Your task to perform on an android device: See recent photos Image 0: 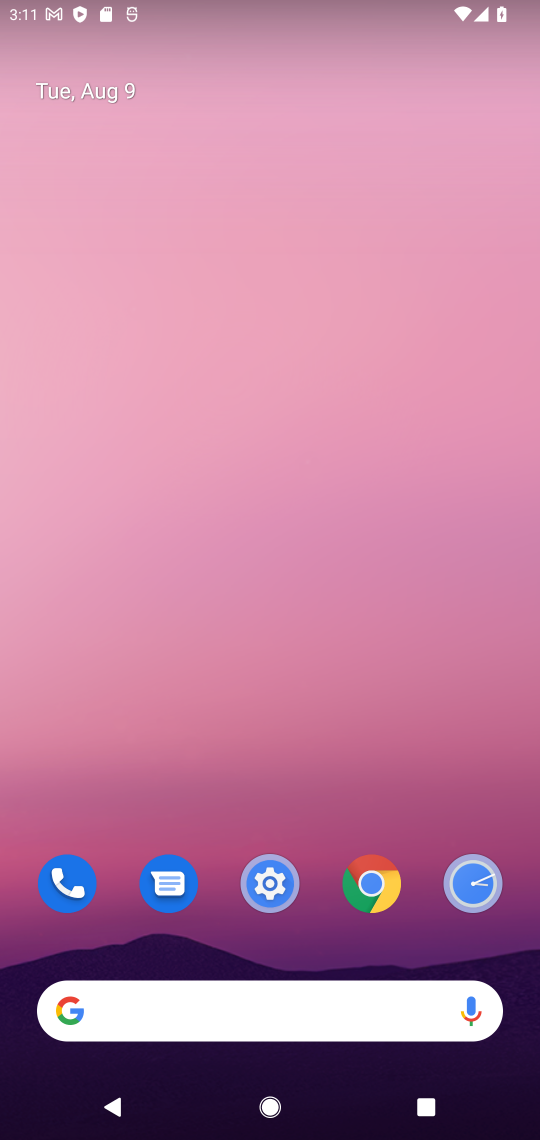
Step 0: drag from (313, 1017) to (136, 196)
Your task to perform on an android device: See recent photos Image 1: 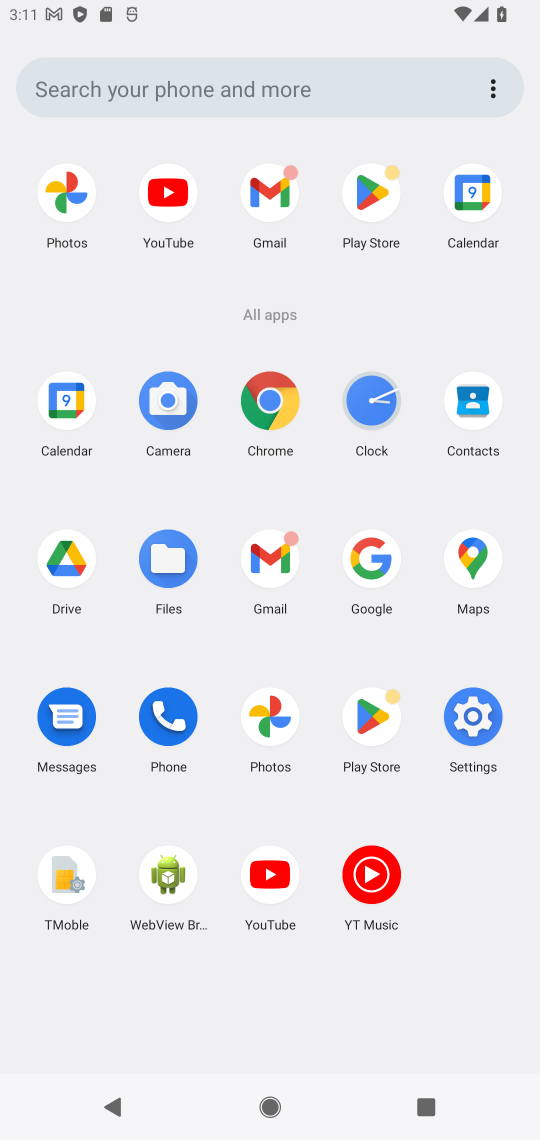
Step 1: click (270, 716)
Your task to perform on an android device: See recent photos Image 2: 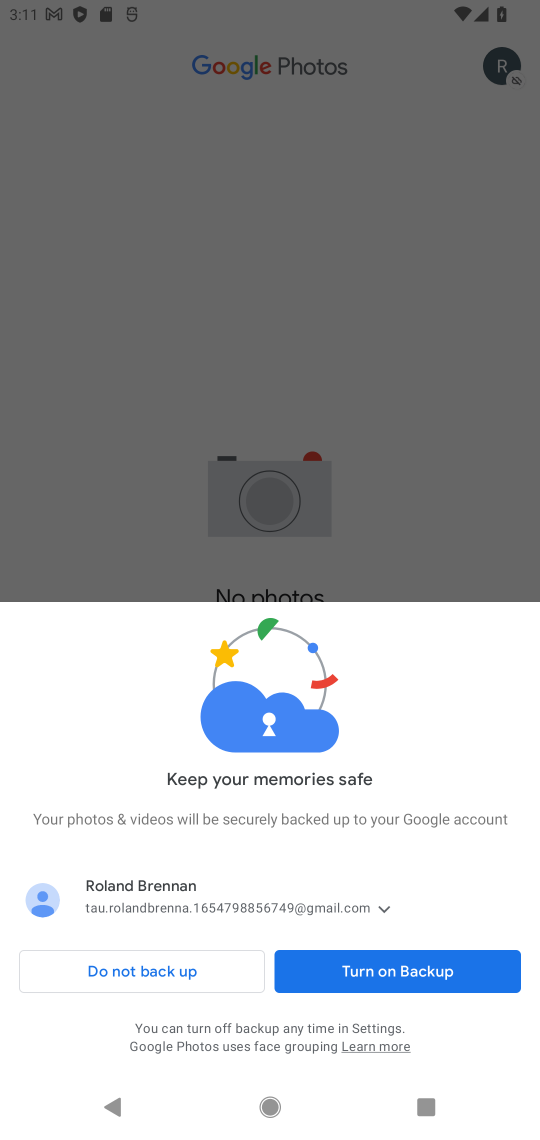
Step 2: click (346, 975)
Your task to perform on an android device: See recent photos Image 3: 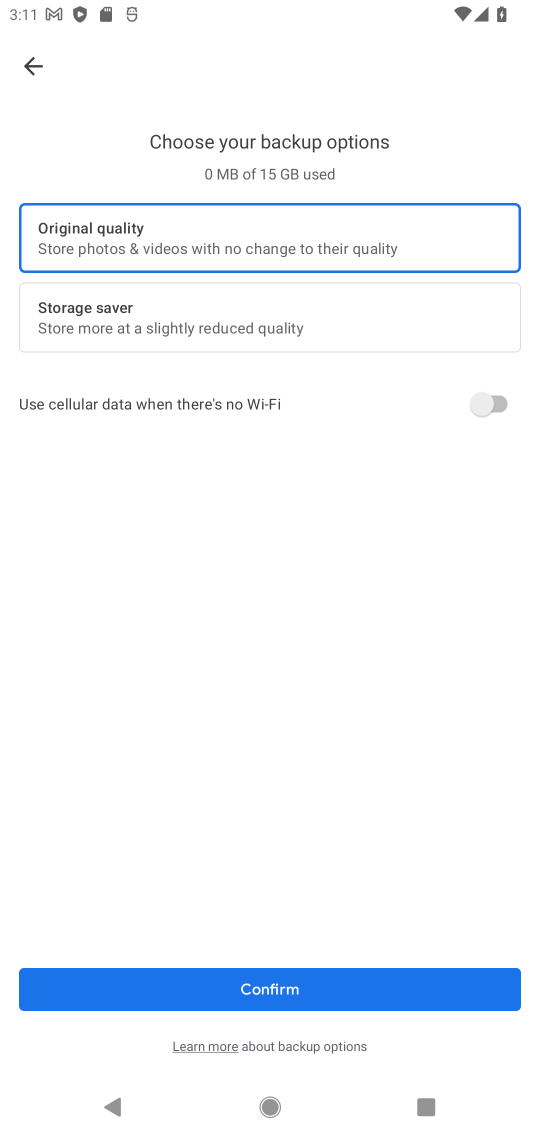
Step 3: click (303, 984)
Your task to perform on an android device: See recent photos Image 4: 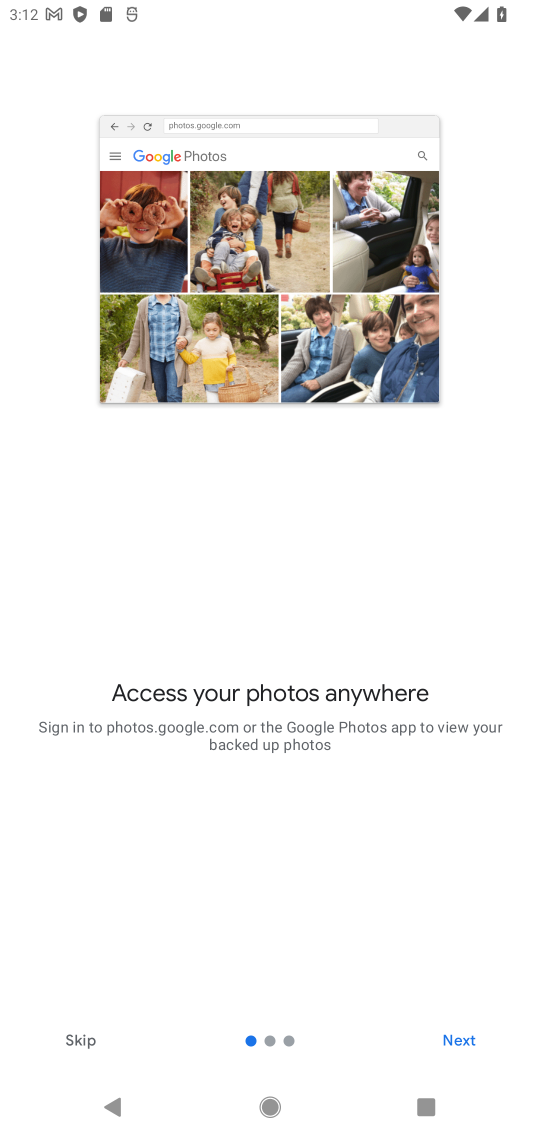
Step 4: click (450, 1043)
Your task to perform on an android device: See recent photos Image 5: 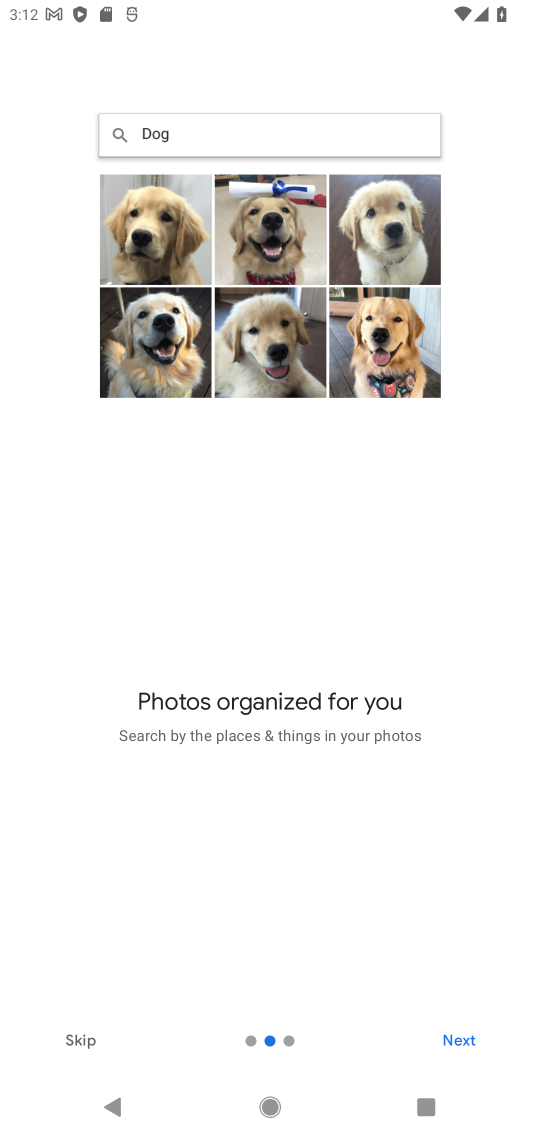
Step 5: click (454, 1042)
Your task to perform on an android device: See recent photos Image 6: 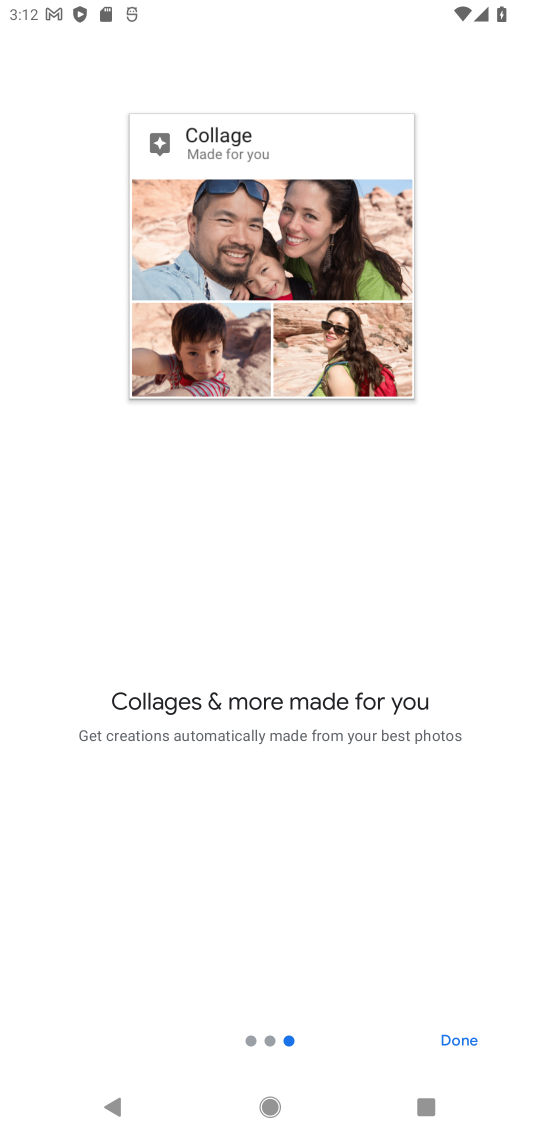
Step 6: click (455, 1040)
Your task to perform on an android device: See recent photos Image 7: 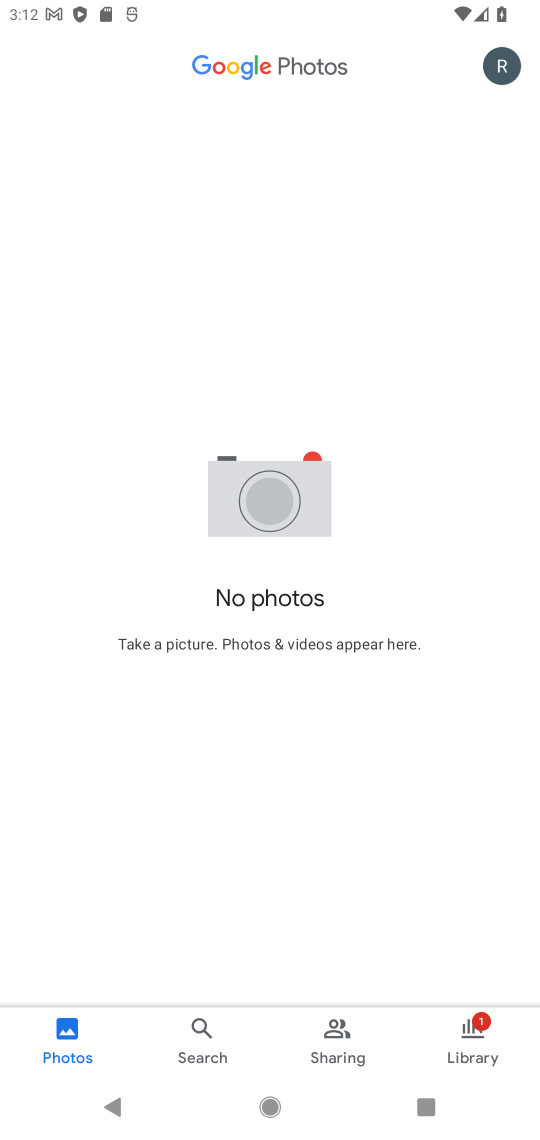
Step 7: task complete